Your task to perform on an android device: Go to CNN.com Image 0: 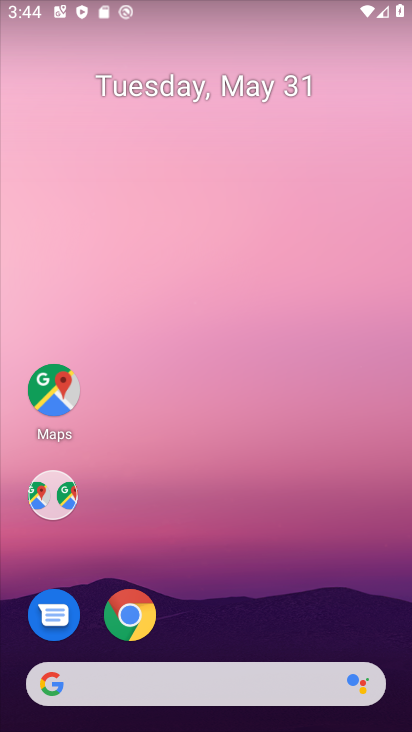
Step 0: drag from (299, 702) to (370, 159)
Your task to perform on an android device: Go to CNN.com Image 1: 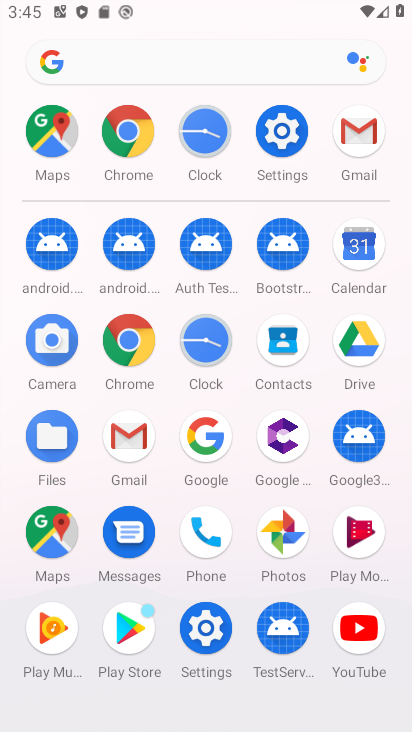
Step 1: click (123, 145)
Your task to perform on an android device: Go to CNN.com Image 2: 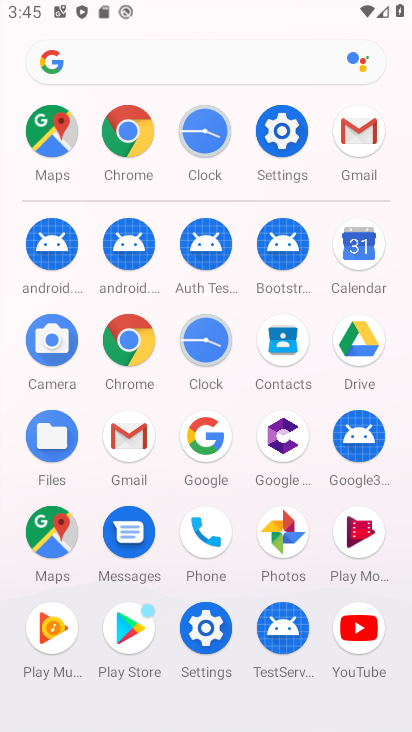
Step 2: click (125, 145)
Your task to perform on an android device: Go to CNN.com Image 3: 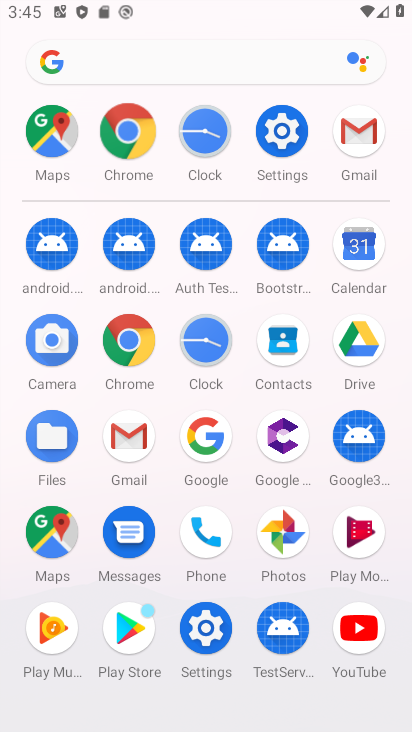
Step 3: click (126, 145)
Your task to perform on an android device: Go to CNN.com Image 4: 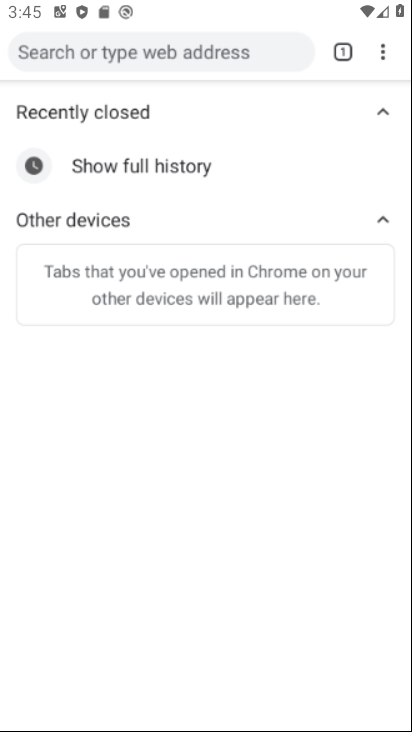
Step 4: click (126, 145)
Your task to perform on an android device: Go to CNN.com Image 5: 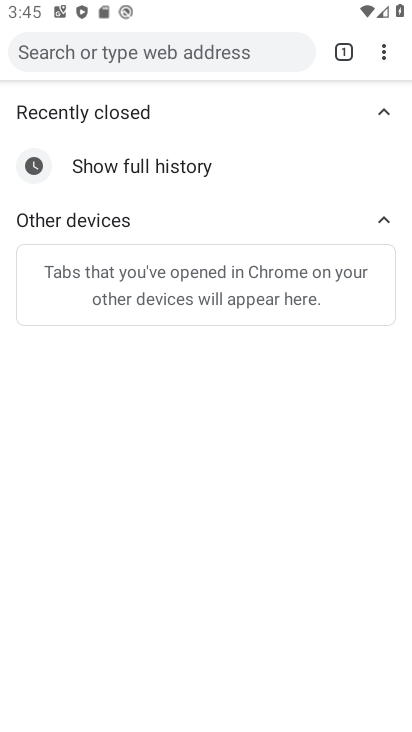
Step 5: click (133, 138)
Your task to perform on an android device: Go to CNN.com Image 6: 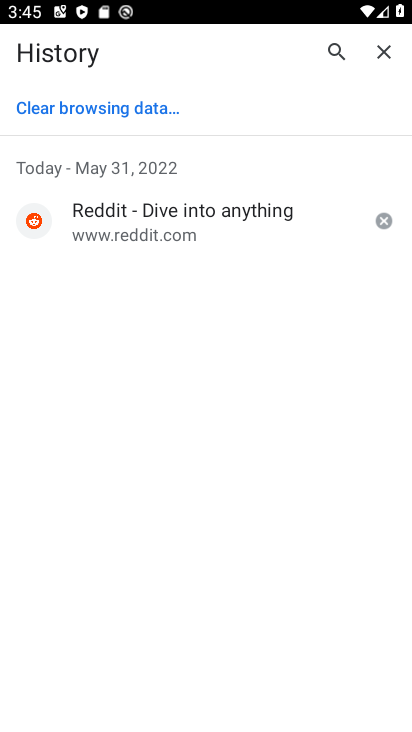
Step 6: press back button
Your task to perform on an android device: Go to CNN.com Image 7: 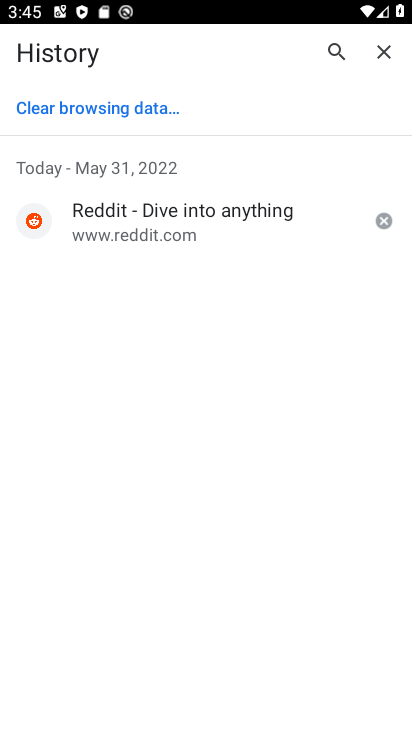
Step 7: press back button
Your task to perform on an android device: Go to CNN.com Image 8: 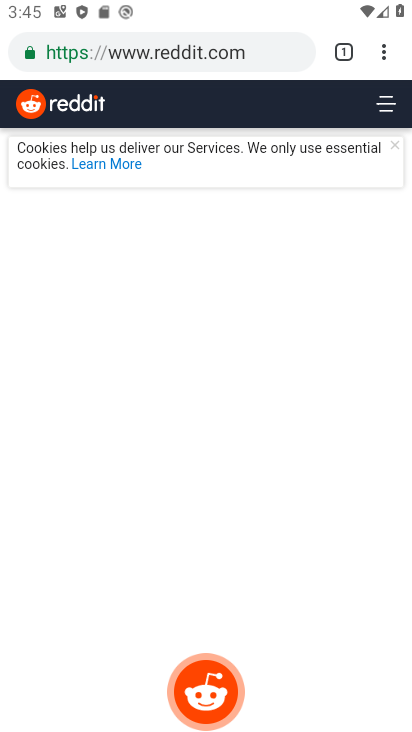
Step 8: drag from (376, 53) to (170, 102)
Your task to perform on an android device: Go to CNN.com Image 9: 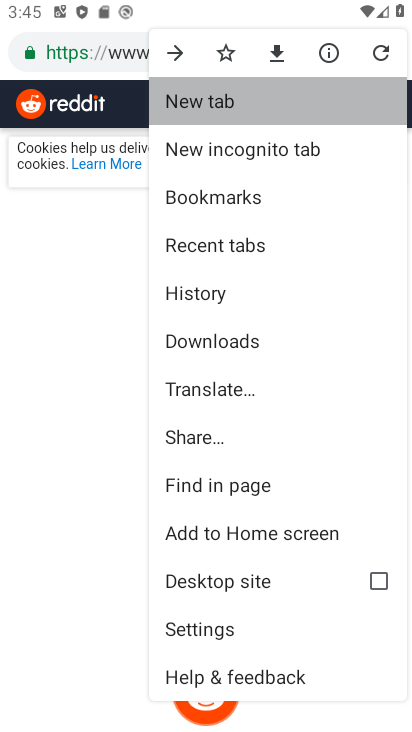
Step 9: click (170, 102)
Your task to perform on an android device: Go to CNN.com Image 10: 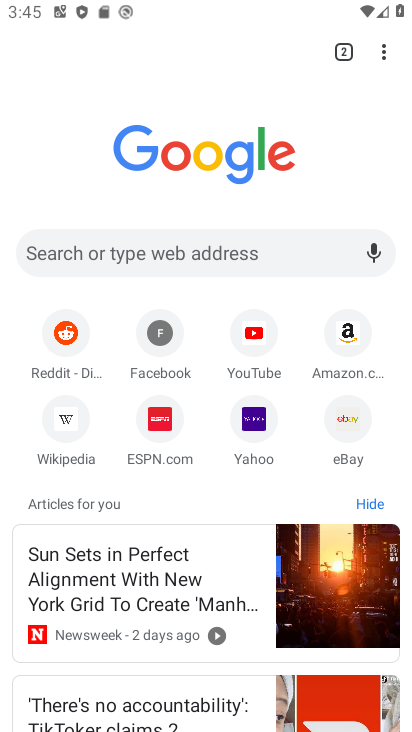
Step 10: click (65, 248)
Your task to perform on an android device: Go to CNN.com Image 11: 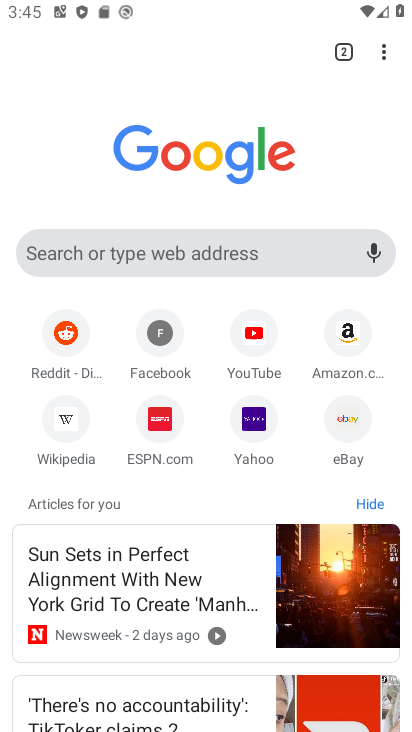
Step 11: click (65, 248)
Your task to perform on an android device: Go to CNN.com Image 12: 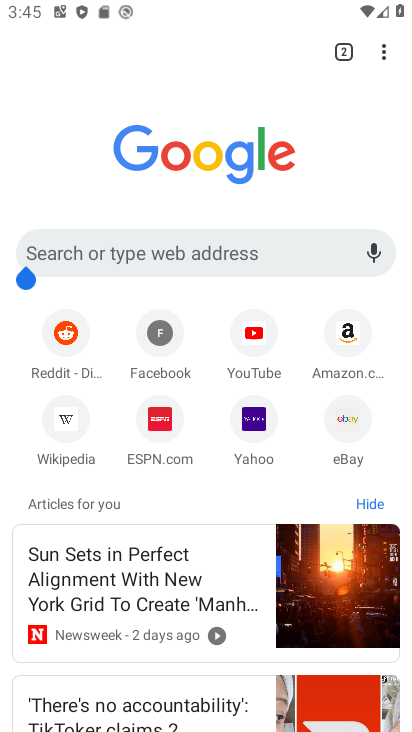
Step 12: click (65, 248)
Your task to perform on an android device: Go to CNN.com Image 13: 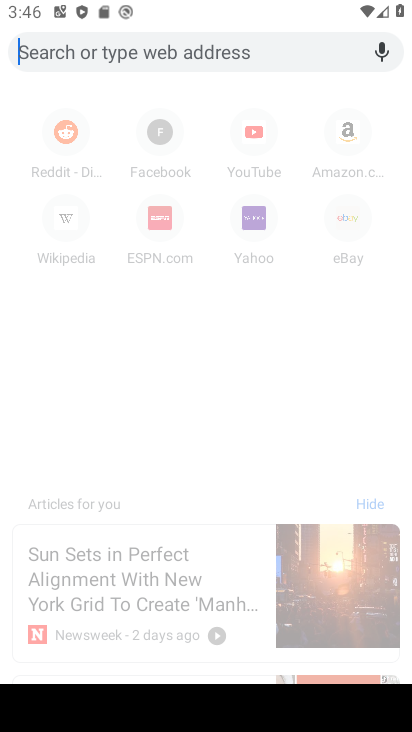
Step 13: type "cnn.com"
Your task to perform on an android device: Go to CNN.com Image 14: 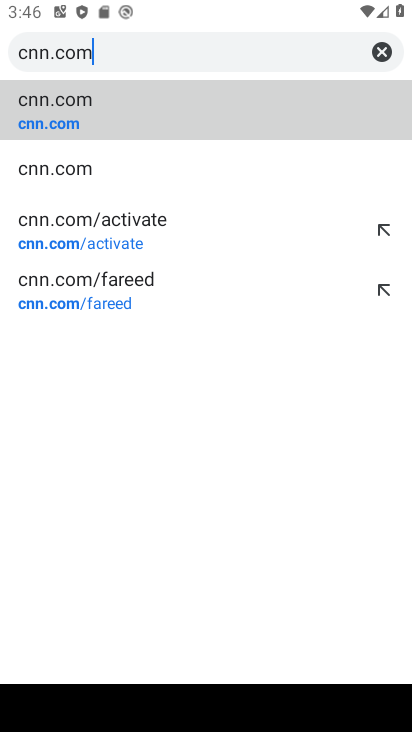
Step 14: click (41, 120)
Your task to perform on an android device: Go to CNN.com Image 15: 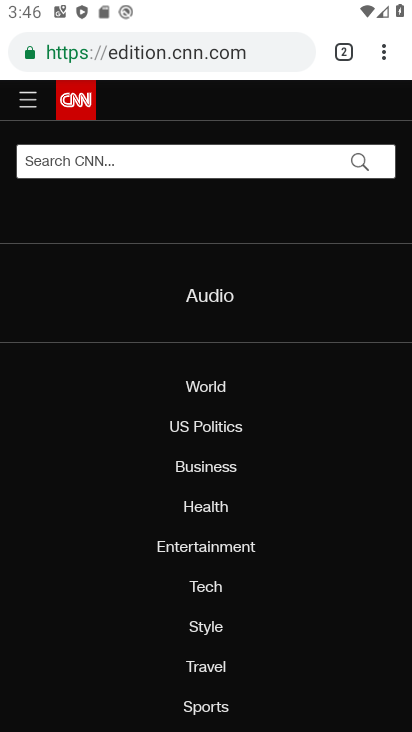
Step 15: task complete